Your task to perform on an android device: Open Google Chrome and open the bookmarks view Image 0: 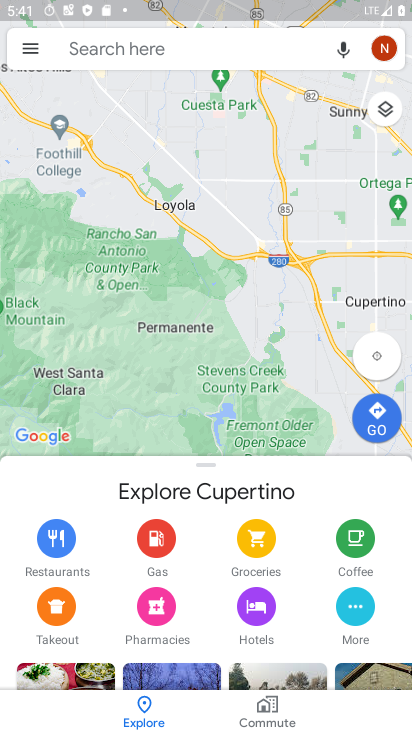
Step 0: press home button
Your task to perform on an android device: Open Google Chrome and open the bookmarks view Image 1: 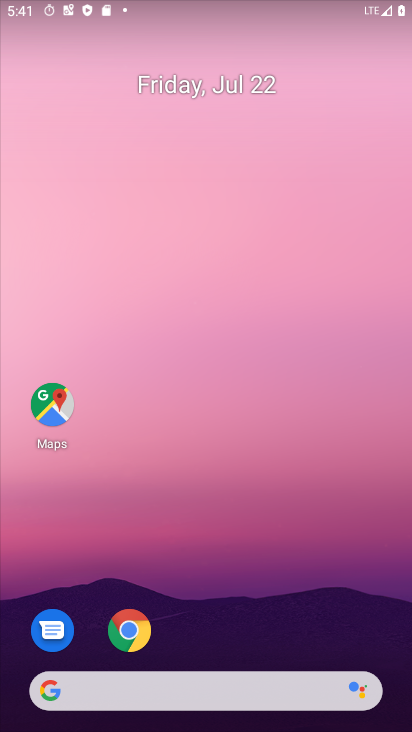
Step 1: drag from (245, 599) to (228, 32)
Your task to perform on an android device: Open Google Chrome and open the bookmarks view Image 2: 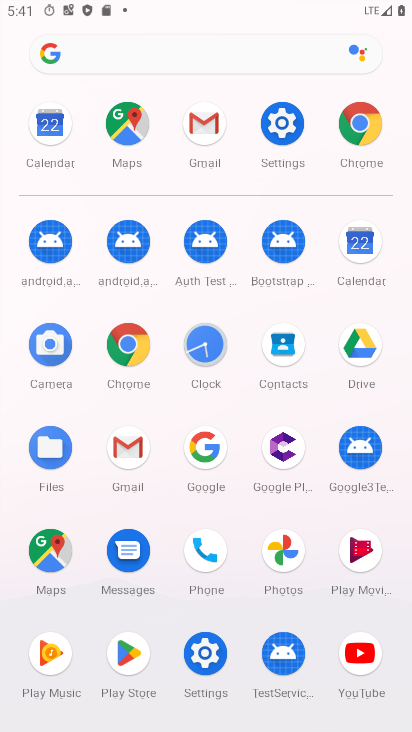
Step 2: click (116, 336)
Your task to perform on an android device: Open Google Chrome and open the bookmarks view Image 3: 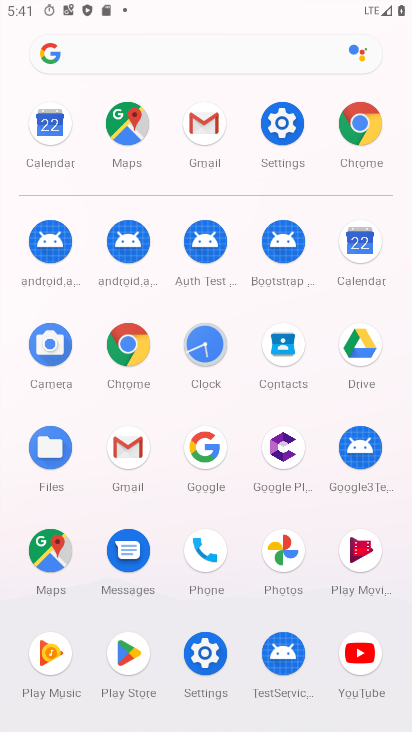
Step 3: task complete